Your task to perform on an android device: Go to eBay Image 0: 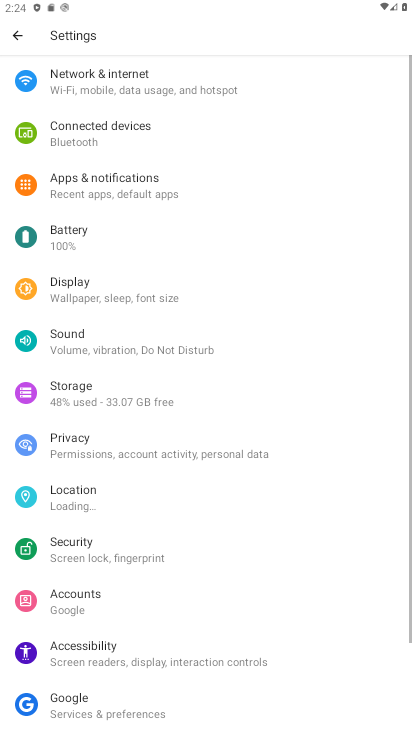
Step 0: press home button
Your task to perform on an android device: Go to eBay Image 1: 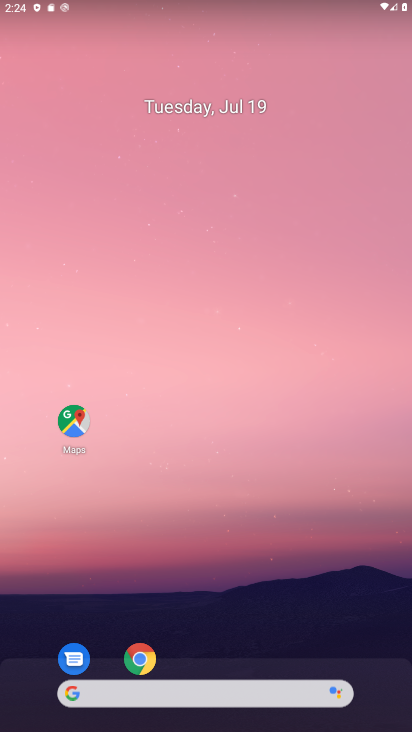
Step 1: click (143, 656)
Your task to perform on an android device: Go to eBay Image 2: 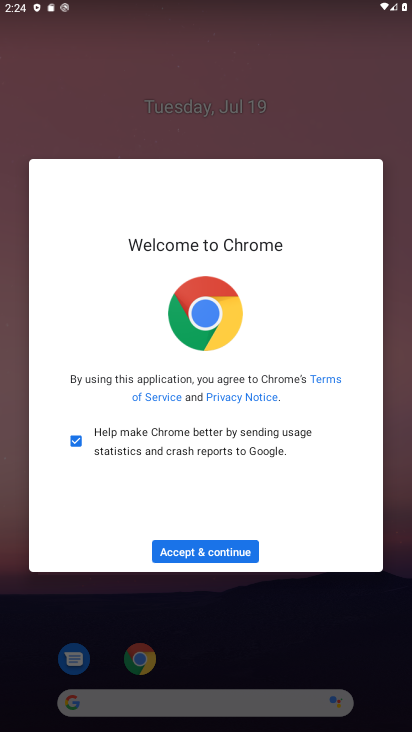
Step 2: click (208, 551)
Your task to perform on an android device: Go to eBay Image 3: 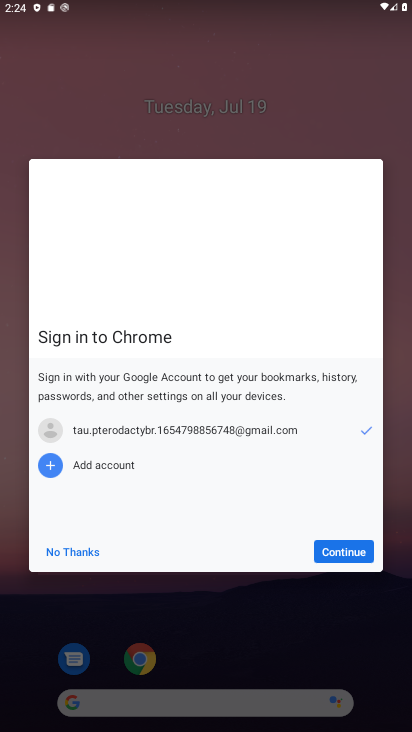
Step 3: click (331, 552)
Your task to perform on an android device: Go to eBay Image 4: 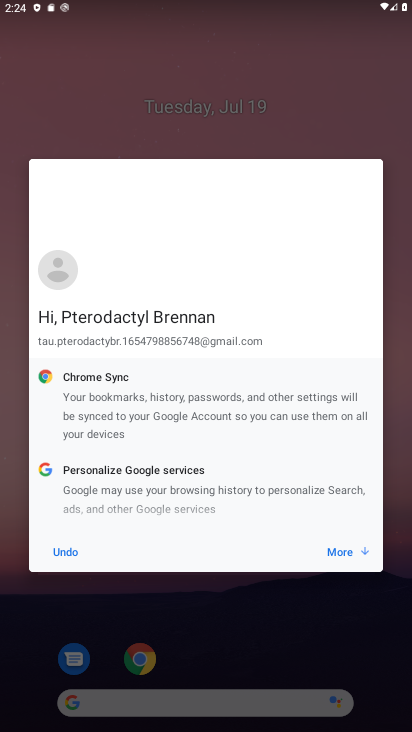
Step 4: click (331, 552)
Your task to perform on an android device: Go to eBay Image 5: 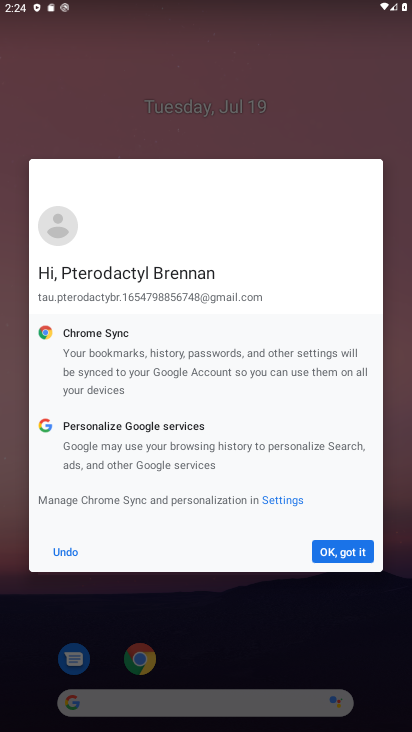
Step 5: click (331, 552)
Your task to perform on an android device: Go to eBay Image 6: 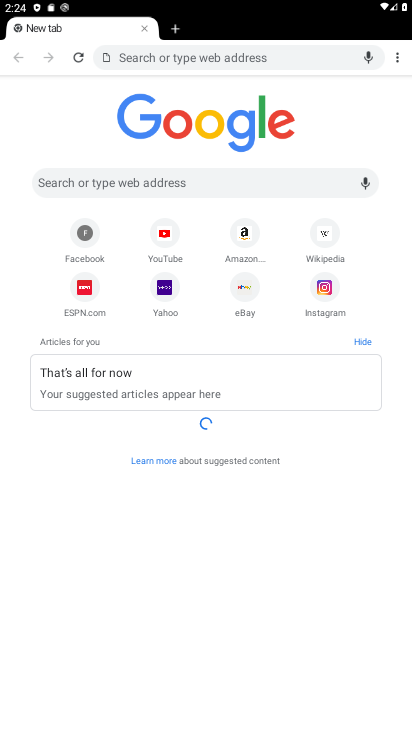
Step 6: click (244, 292)
Your task to perform on an android device: Go to eBay Image 7: 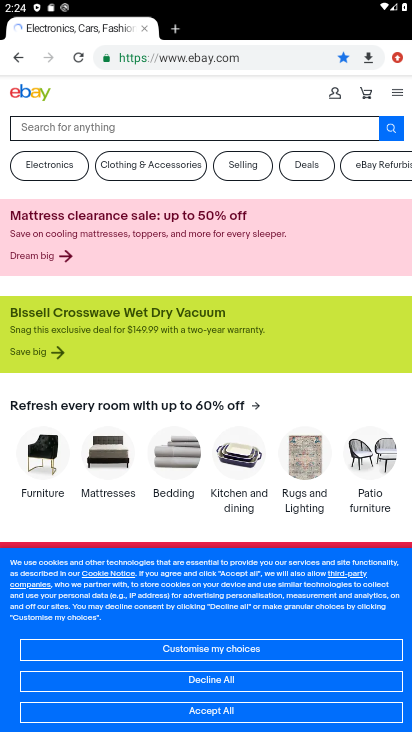
Step 7: task complete